Your task to perform on an android device: Empty the shopping cart on newegg.com. Search for "razer blade" on newegg.com, select the first entry, add it to the cart, then select checkout. Image 0: 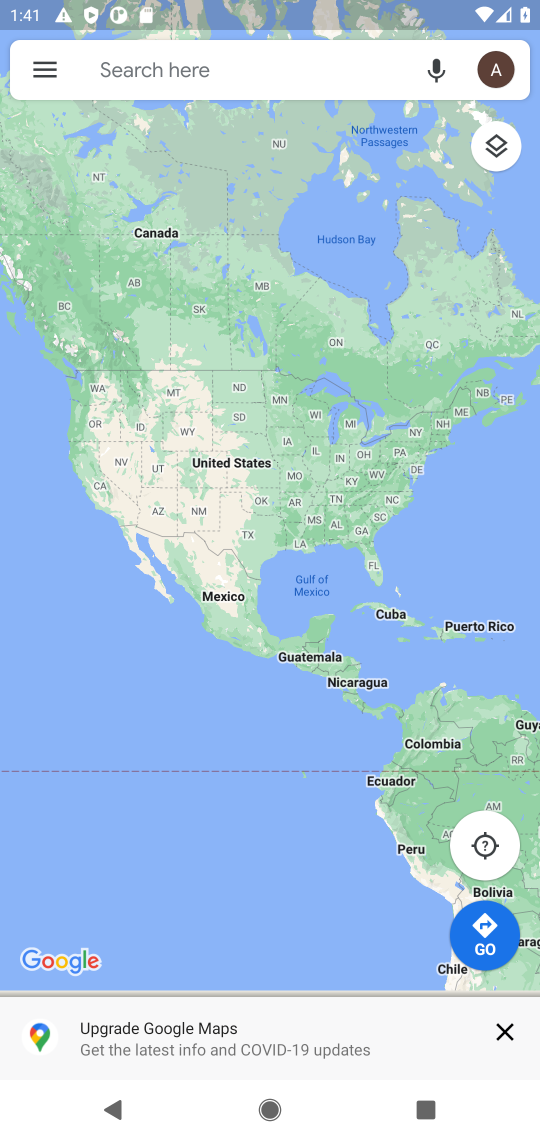
Step 0: press home button
Your task to perform on an android device: Empty the shopping cart on newegg.com. Search for "razer blade" on newegg.com, select the first entry, add it to the cart, then select checkout. Image 1: 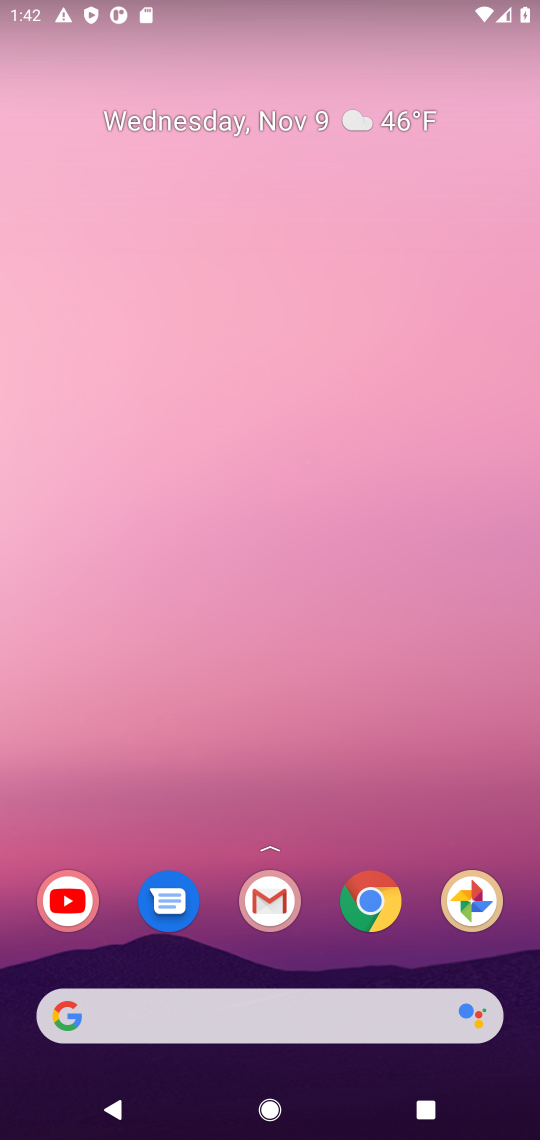
Step 1: click (371, 913)
Your task to perform on an android device: Empty the shopping cart on newegg.com. Search for "razer blade" on newegg.com, select the first entry, add it to the cart, then select checkout. Image 2: 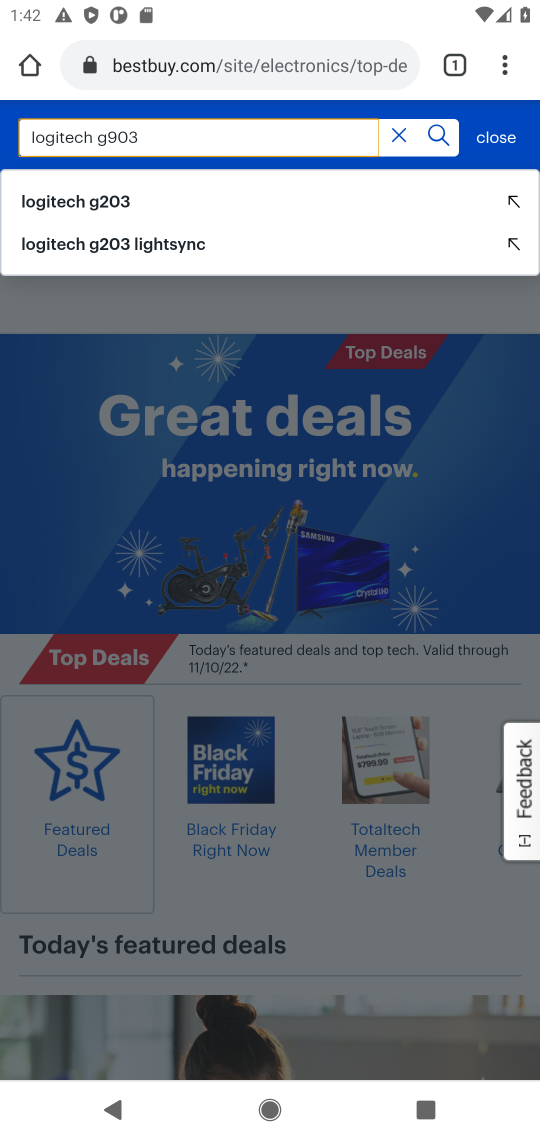
Step 2: click (217, 49)
Your task to perform on an android device: Empty the shopping cart on newegg.com. Search for "razer blade" on newegg.com, select the first entry, add it to the cart, then select checkout. Image 3: 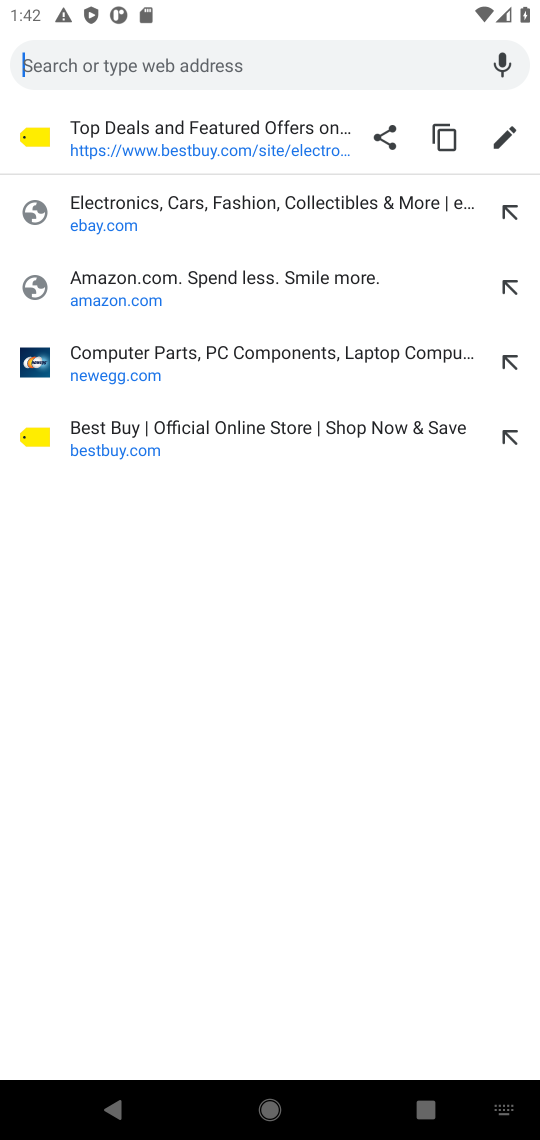
Step 3: click (138, 348)
Your task to perform on an android device: Empty the shopping cart on newegg.com. Search for "razer blade" on newegg.com, select the first entry, add it to the cart, then select checkout. Image 4: 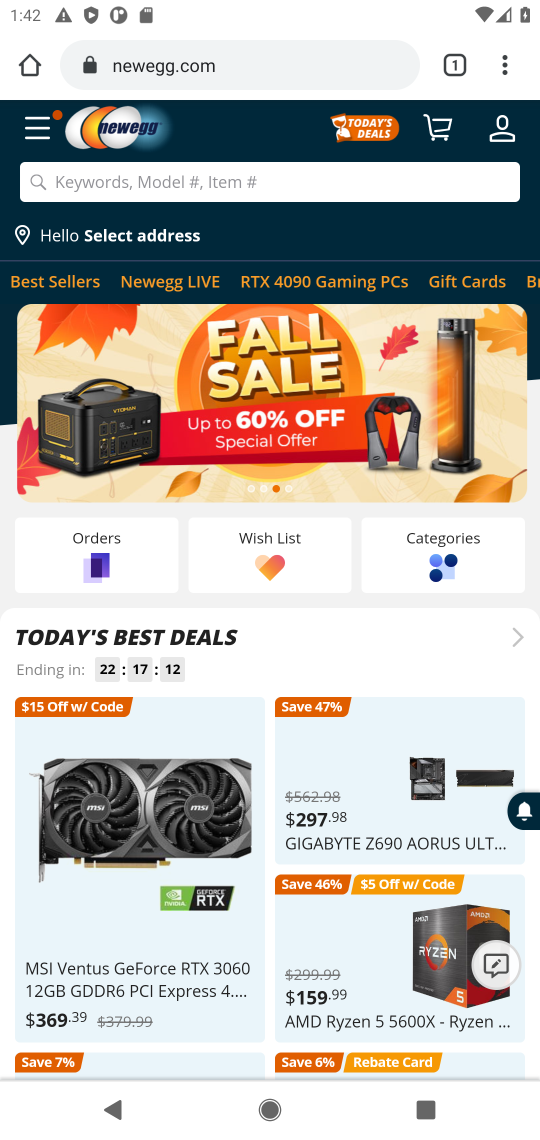
Step 4: click (429, 123)
Your task to perform on an android device: Empty the shopping cart on newegg.com. Search for "razer blade" on newegg.com, select the first entry, add it to the cart, then select checkout. Image 5: 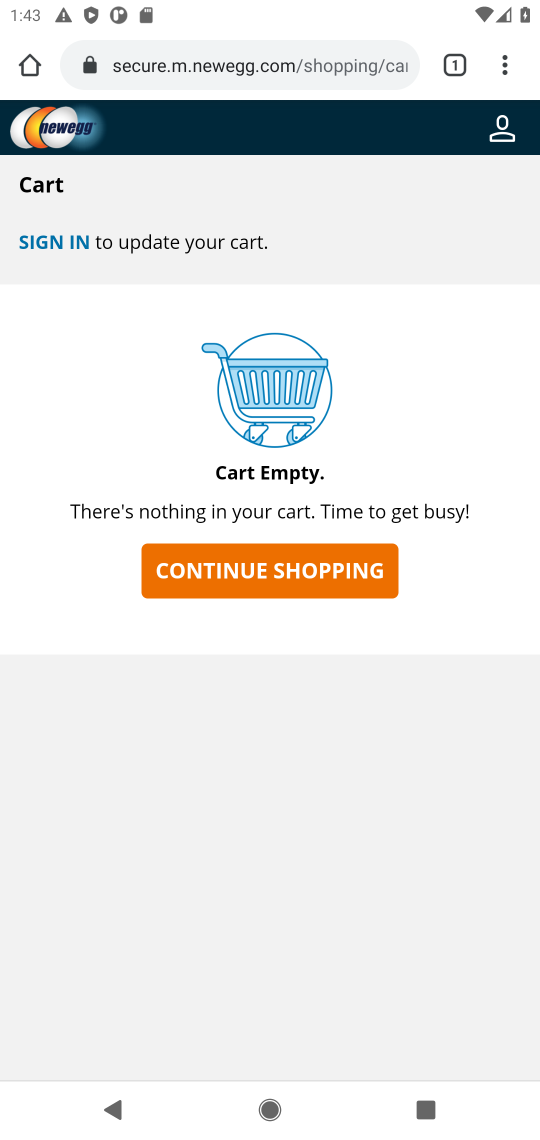
Step 5: press back button
Your task to perform on an android device: Empty the shopping cart on newegg.com. Search for "razer blade" on newegg.com, select the first entry, add it to the cart, then select checkout. Image 6: 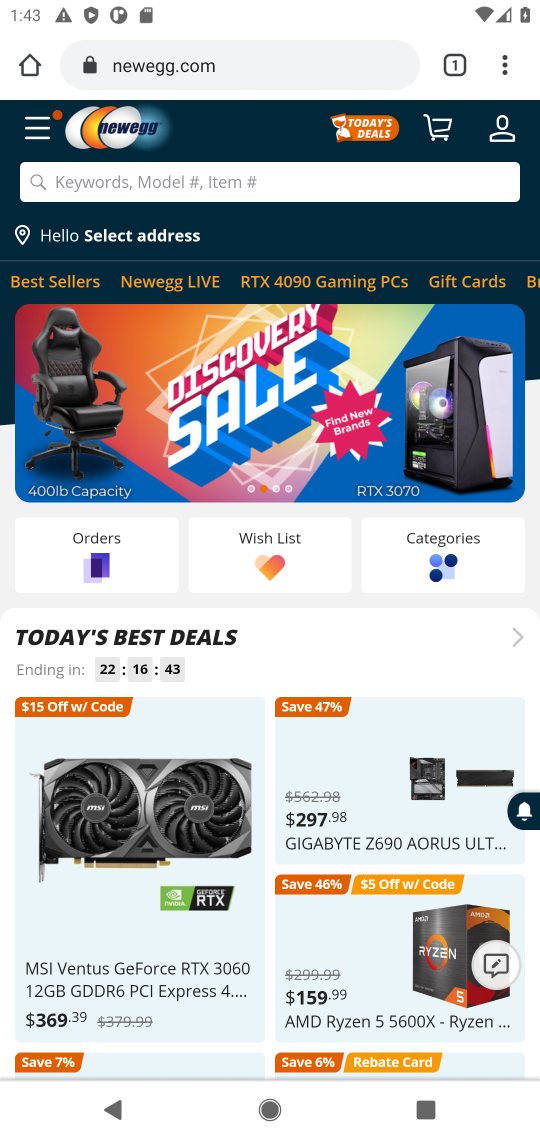
Step 6: click (453, 183)
Your task to perform on an android device: Empty the shopping cart on newegg.com. Search for "razer blade" on newegg.com, select the first entry, add it to the cart, then select checkout. Image 7: 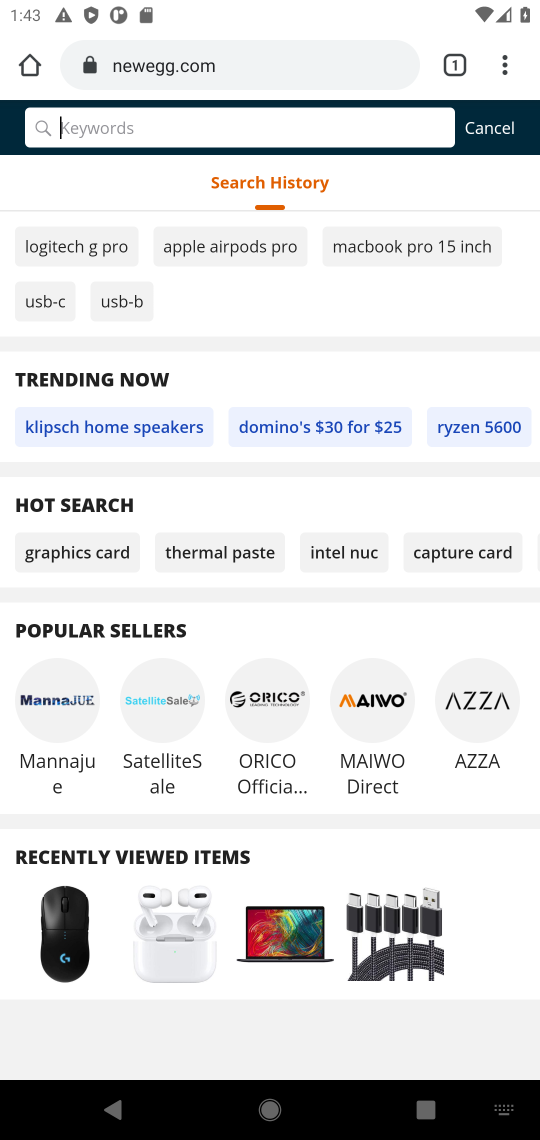
Step 7: type "razer blade"
Your task to perform on an android device: Empty the shopping cart on newegg.com. Search for "razer blade" on newegg.com, select the first entry, add it to the cart, then select checkout. Image 8: 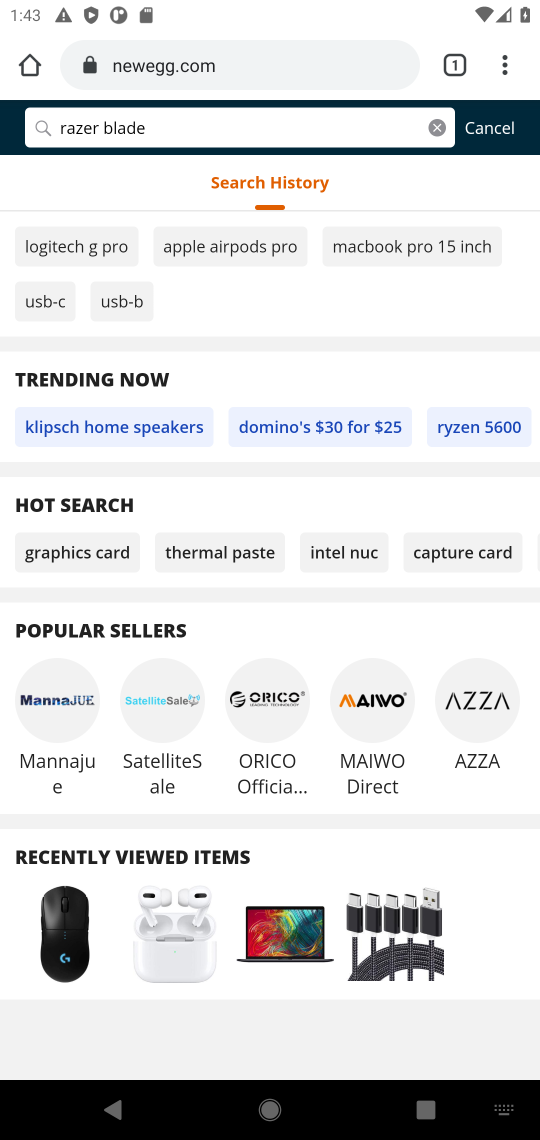
Step 8: press enter
Your task to perform on an android device: Empty the shopping cart on newegg.com. Search for "razer blade" on newegg.com, select the first entry, add it to the cart, then select checkout. Image 9: 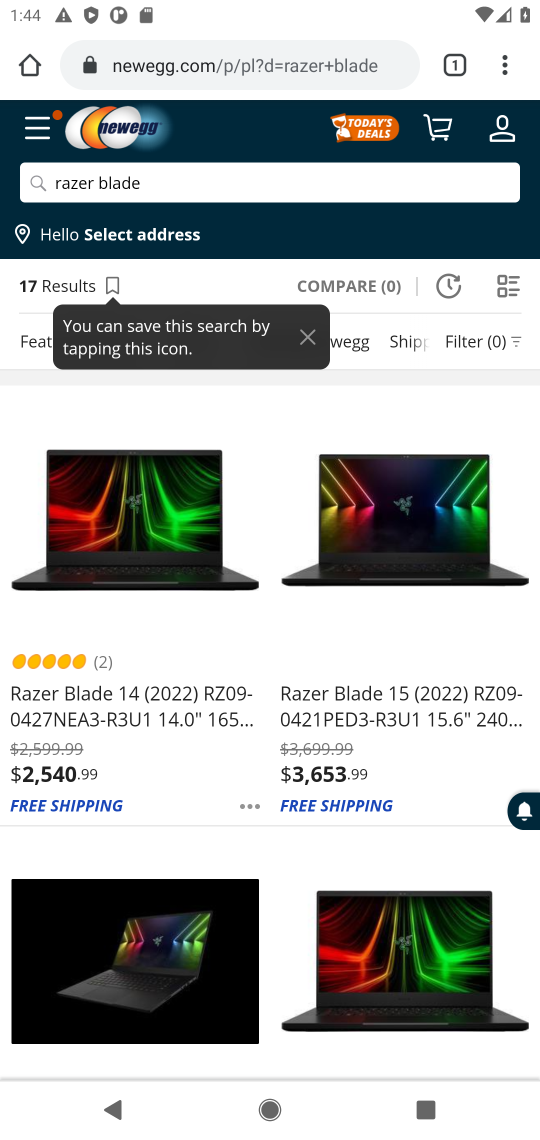
Step 9: click (130, 502)
Your task to perform on an android device: Empty the shopping cart on newegg.com. Search for "razer blade" on newegg.com, select the first entry, add it to the cart, then select checkout. Image 10: 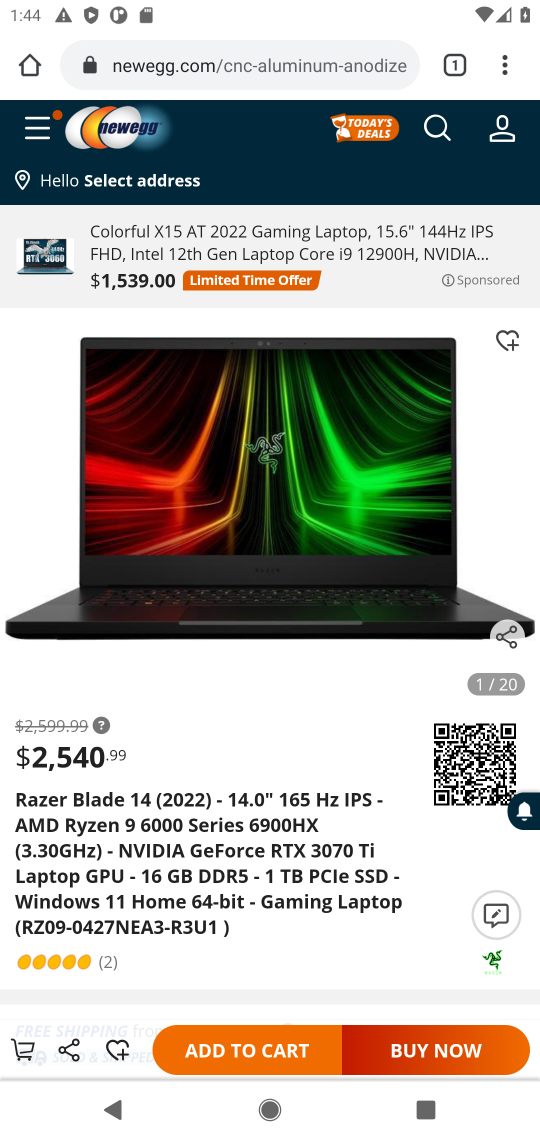
Step 10: click (265, 1052)
Your task to perform on an android device: Empty the shopping cart on newegg.com. Search for "razer blade" on newegg.com, select the first entry, add it to the cart, then select checkout. Image 11: 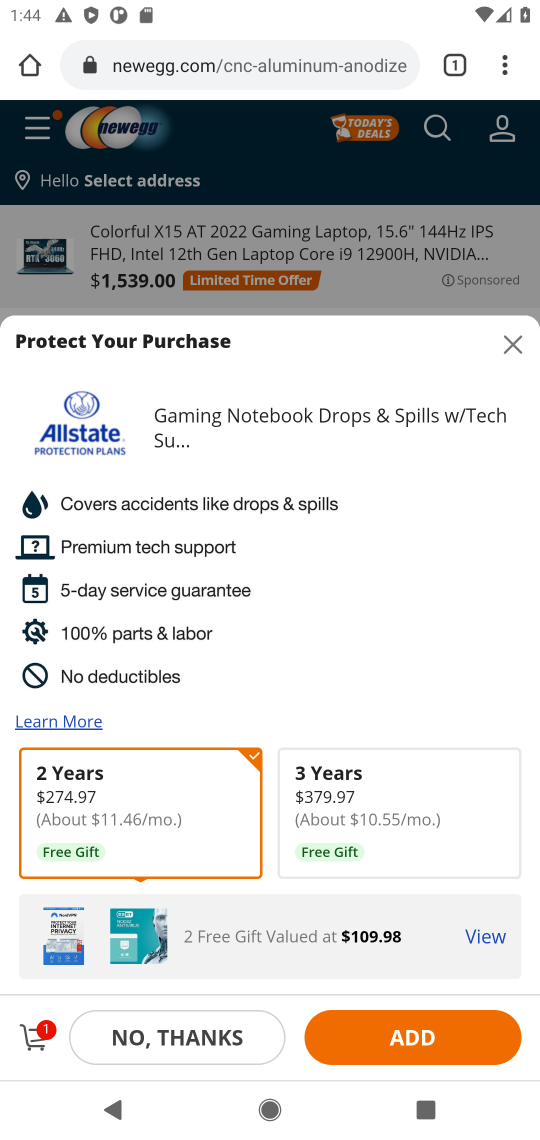
Step 11: click (511, 349)
Your task to perform on an android device: Empty the shopping cart on newegg.com. Search for "razer blade" on newegg.com, select the first entry, add it to the cart, then select checkout. Image 12: 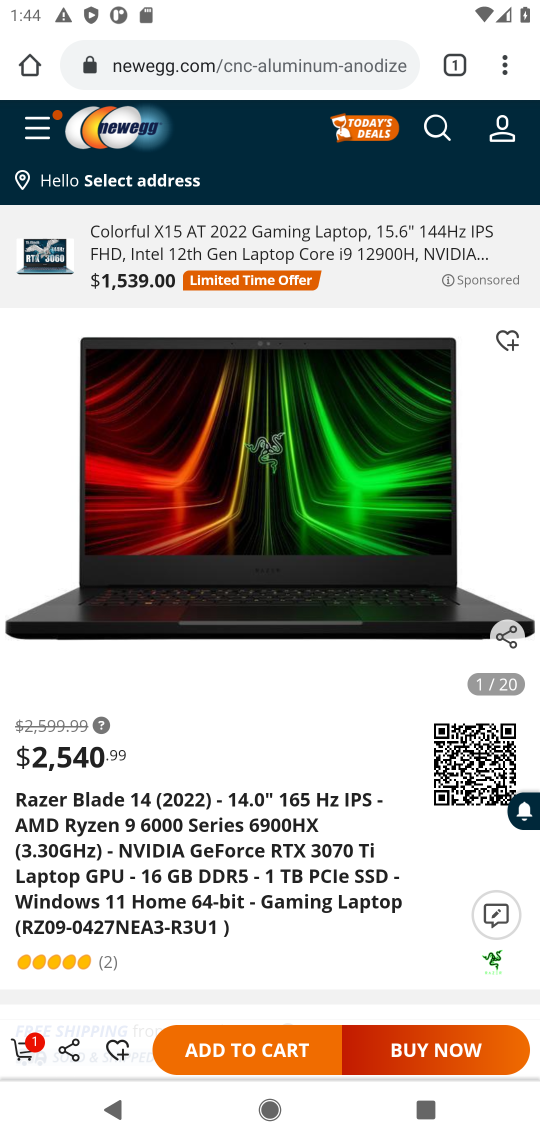
Step 12: click (27, 1054)
Your task to perform on an android device: Empty the shopping cart on newegg.com. Search for "razer blade" on newegg.com, select the first entry, add it to the cart, then select checkout. Image 13: 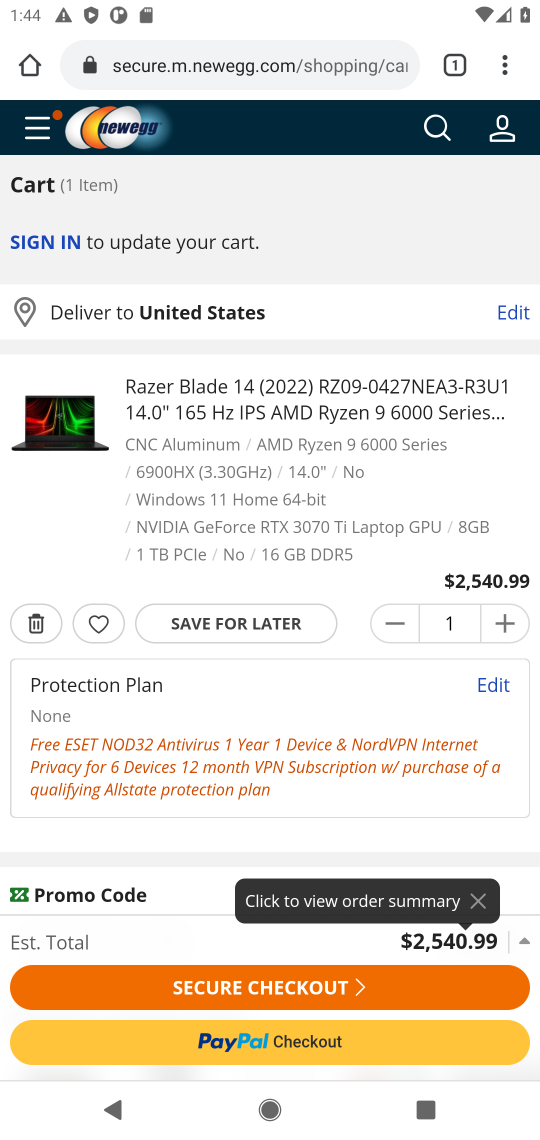
Step 13: click (249, 979)
Your task to perform on an android device: Empty the shopping cart on newegg.com. Search for "razer blade" on newegg.com, select the first entry, add it to the cart, then select checkout. Image 14: 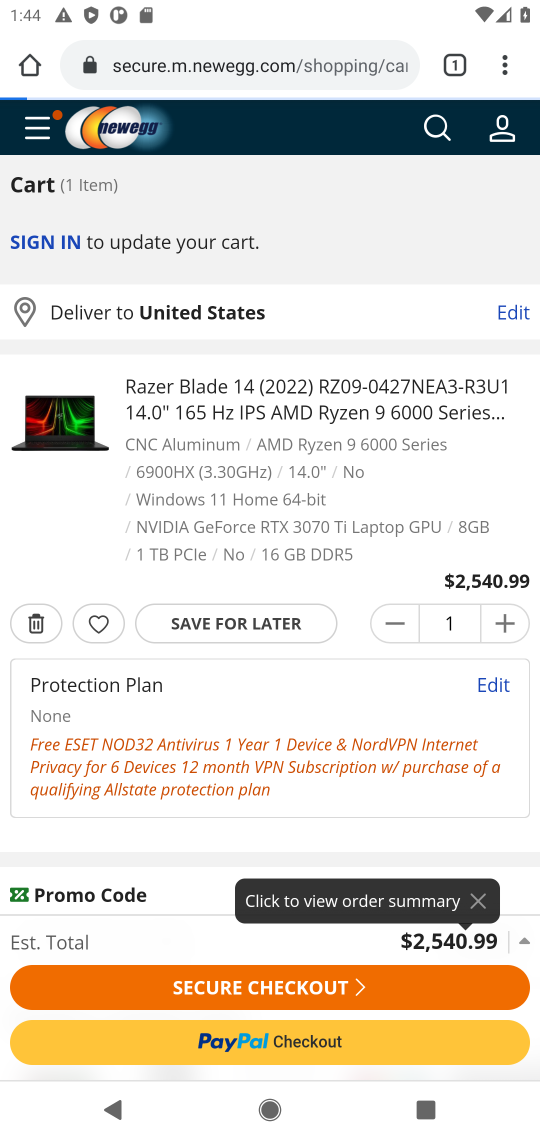
Step 14: task complete